Your task to perform on an android device: toggle priority inbox in the gmail app Image 0: 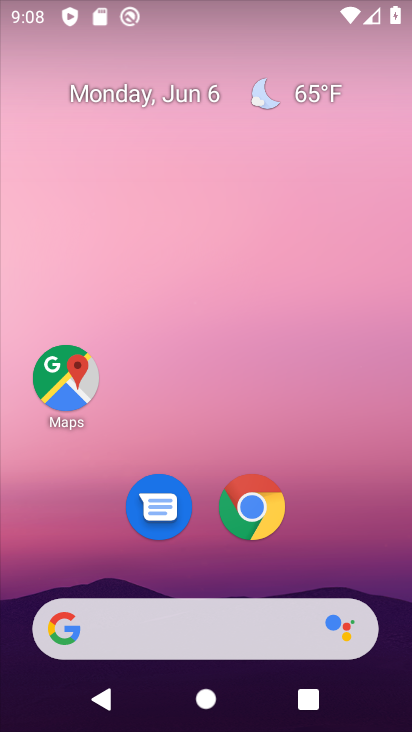
Step 0: drag from (304, 515) to (324, 298)
Your task to perform on an android device: toggle priority inbox in the gmail app Image 1: 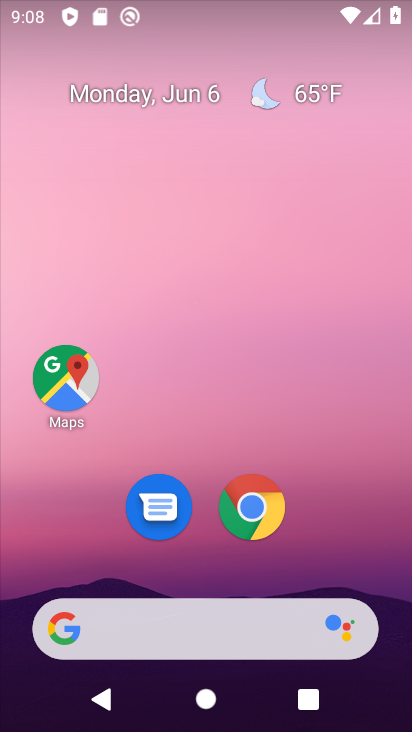
Step 1: drag from (243, 553) to (256, 227)
Your task to perform on an android device: toggle priority inbox in the gmail app Image 2: 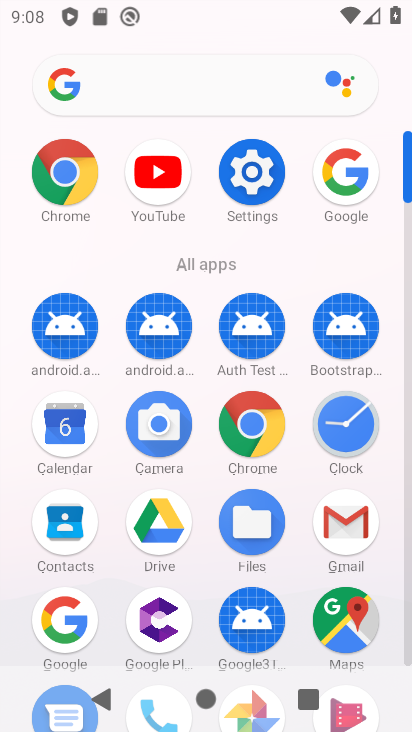
Step 2: click (344, 513)
Your task to perform on an android device: toggle priority inbox in the gmail app Image 3: 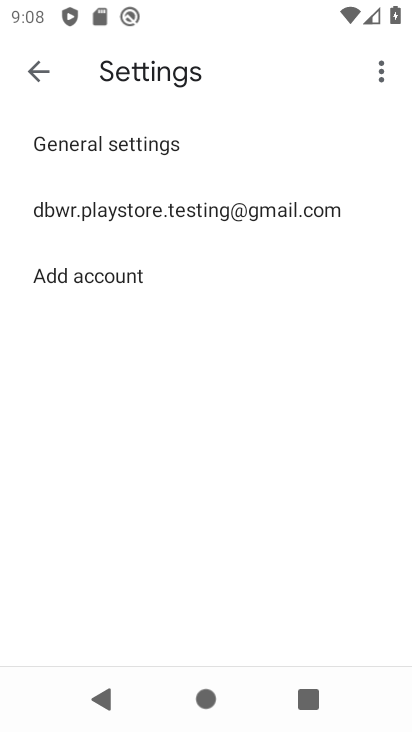
Step 3: click (119, 208)
Your task to perform on an android device: toggle priority inbox in the gmail app Image 4: 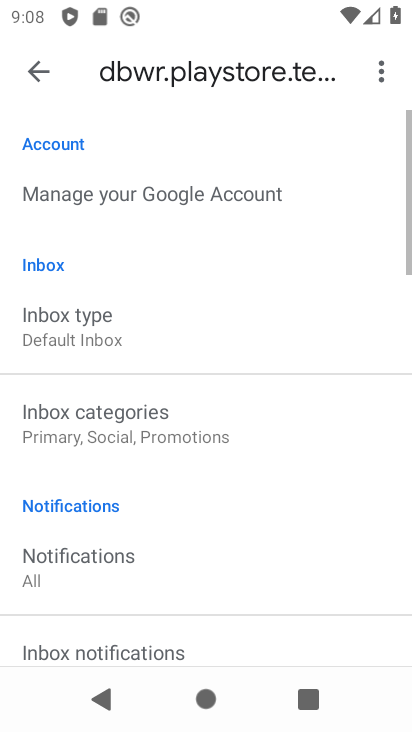
Step 4: click (105, 317)
Your task to perform on an android device: toggle priority inbox in the gmail app Image 5: 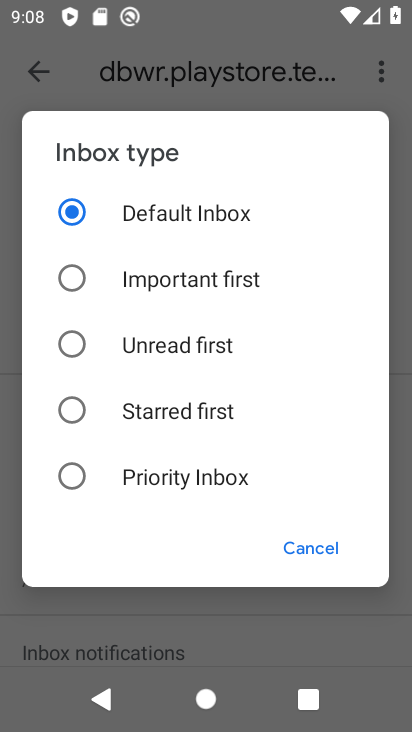
Step 5: click (161, 476)
Your task to perform on an android device: toggle priority inbox in the gmail app Image 6: 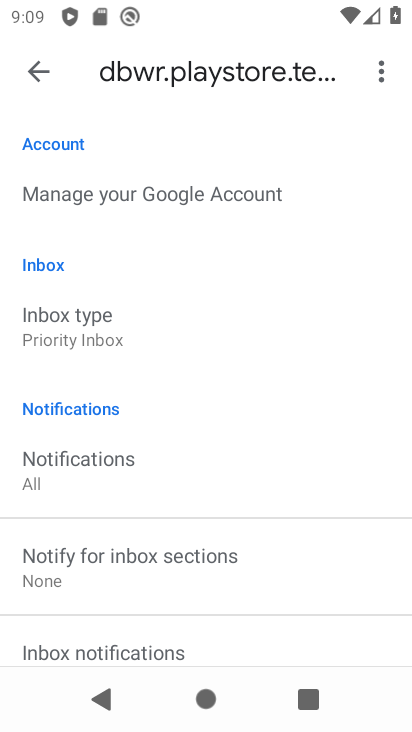
Step 6: task complete